Your task to perform on an android device: turn off data saver in the chrome app Image 0: 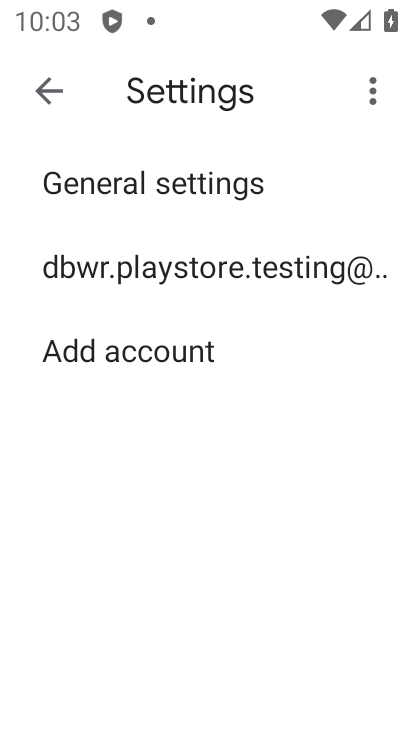
Step 0: press home button
Your task to perform on an android device: turn off data saver in the chrome app Image 1: 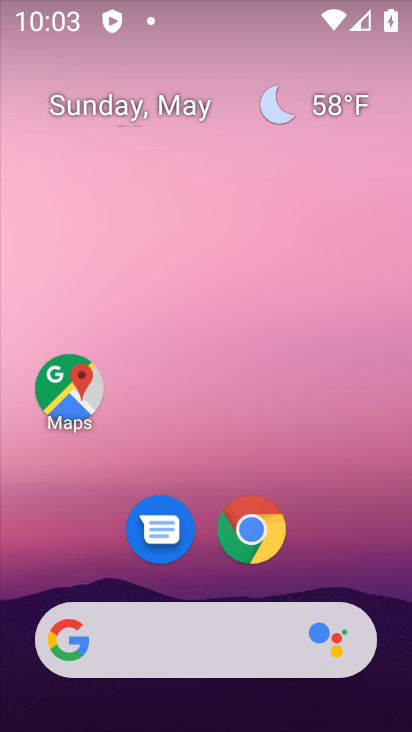
Step 1: click (272, 538)
Your task to perform on an android device: turn off data saver in the chrome app Image 2: 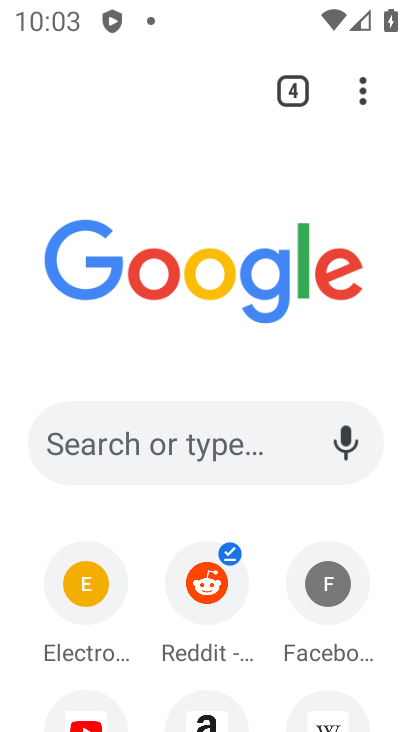
Step 2: click (355, 94)
Your task to perform on an android device: turn off data saver in the chrome app Image 3: 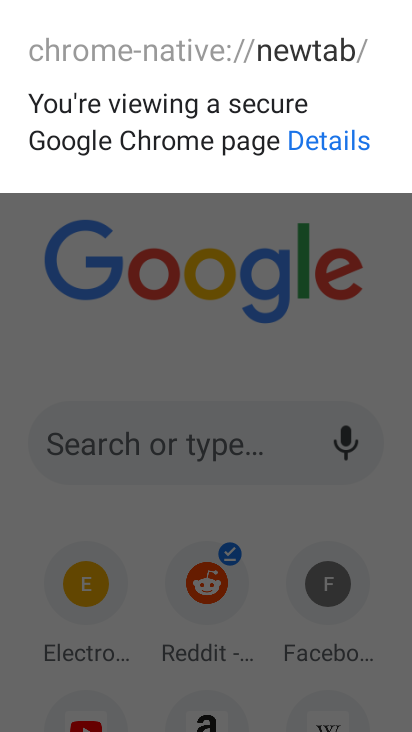
Step 3: click (305, 246)
Your task to perform on an android device: turn off data saver in the chrome app Image 4: 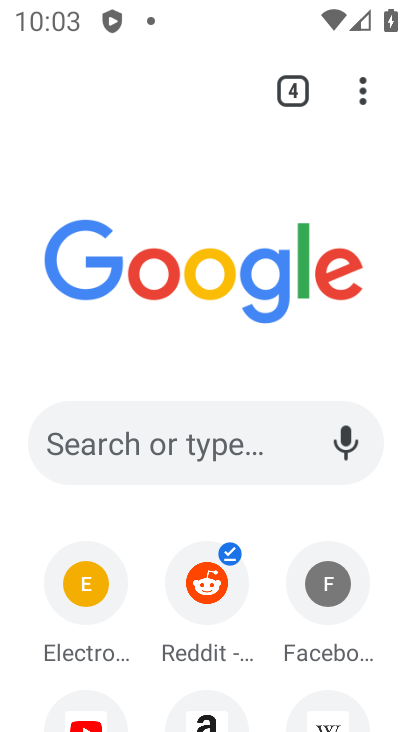
Step 4: click (365, 94)
Your task to perform on an android device: turn off data saver in the chrome app Image 5: 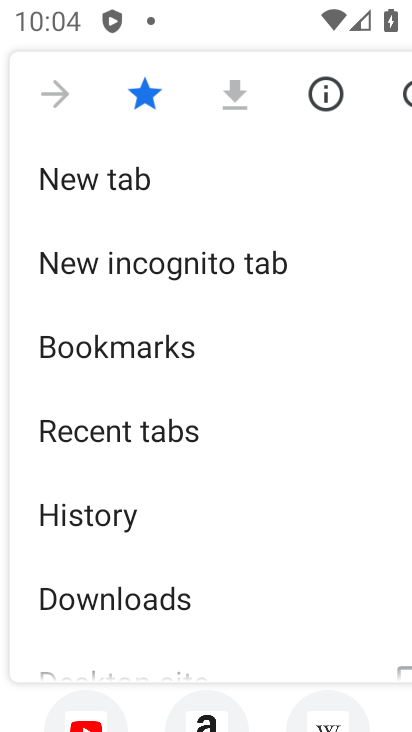
Step 5: drag from (175, 517) to (275, 8)
Your task to perform on an android device: turn off data saver in the chrome app Image 6: 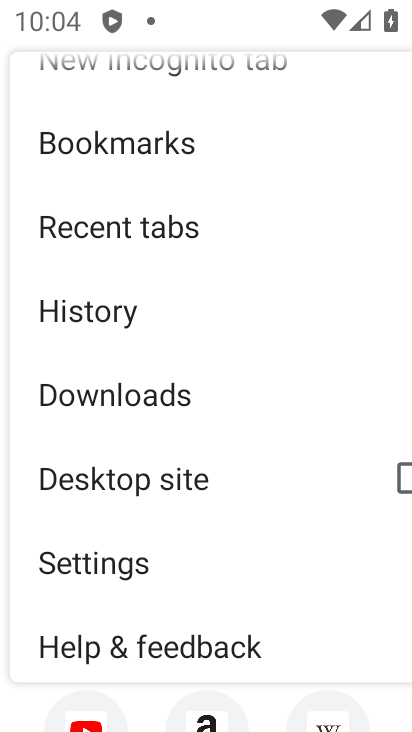
Step 6: drag from (142, 526) to (201, 187)
Your task to perform on an android device: turn off data saver in the chrome app Image 7: 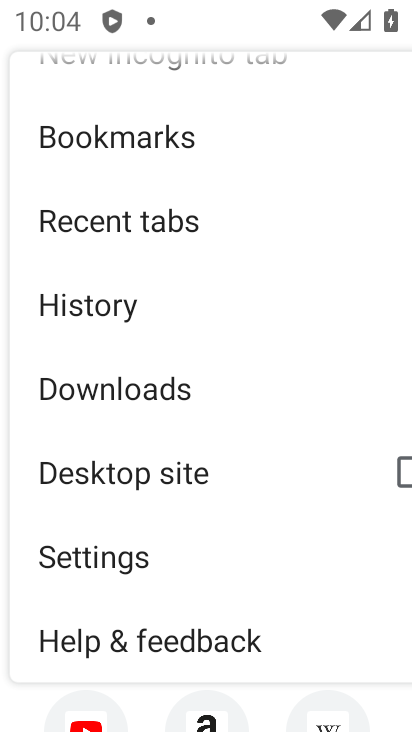
Step 7: click (136, 567)
Your task to perform on an android device: turn off data saver in the chrome app Image 8: 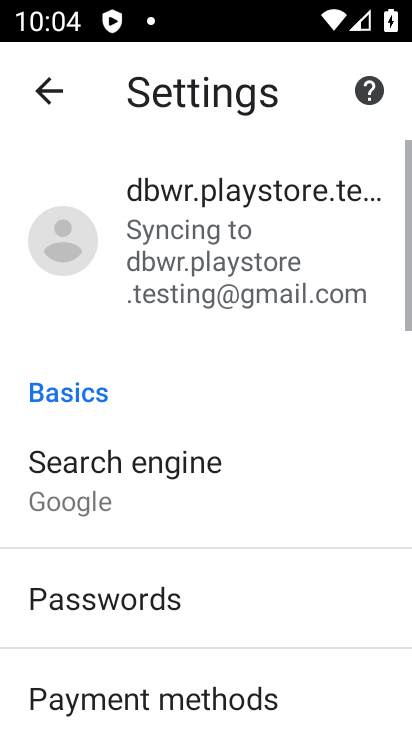
Step 8: drag from (154, 574) to (220, 158)
Your task to perform on an android device: turn off data saver in the chrome app Image 9: 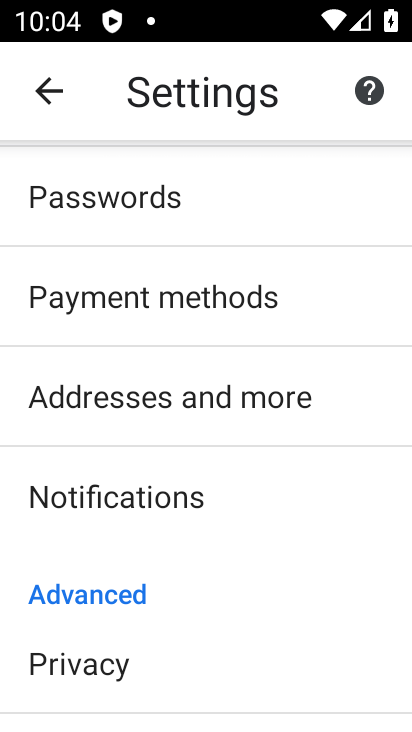
Step 9: drag from (197, 551) to (256, 169)
Your task to perform on an android device: turn off data saver in the chrome app Image 10: 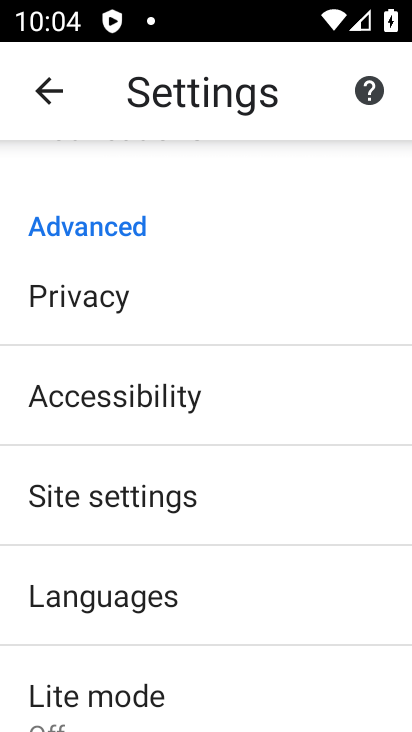
Step 10: drag from (169, 616) to (167, 342)
Your task to perform on an android device: turn off data saver in the chrome app Image 11: 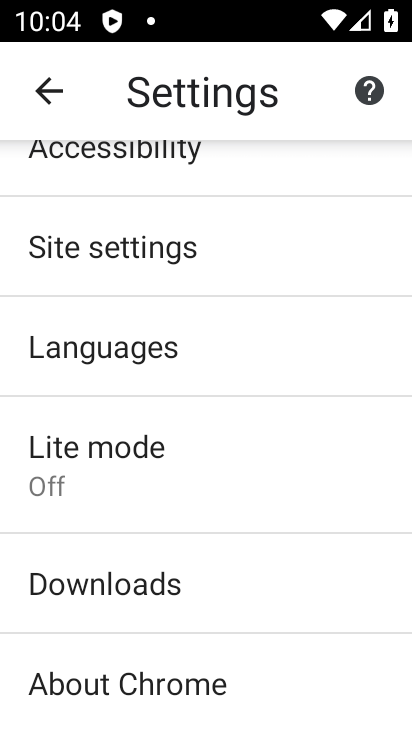
Step 11: click (144, 489)
Your task to perform on an android device: turn off data saver in the chrome app Image 12: 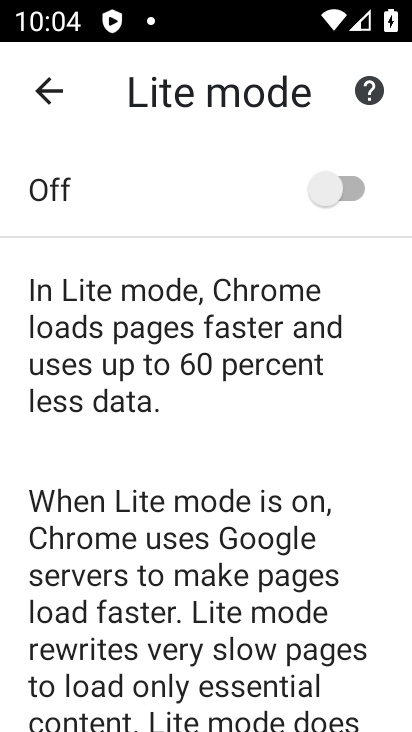
Step 12: task complete